Your task to perform on an android device: Open display settings Image 0: 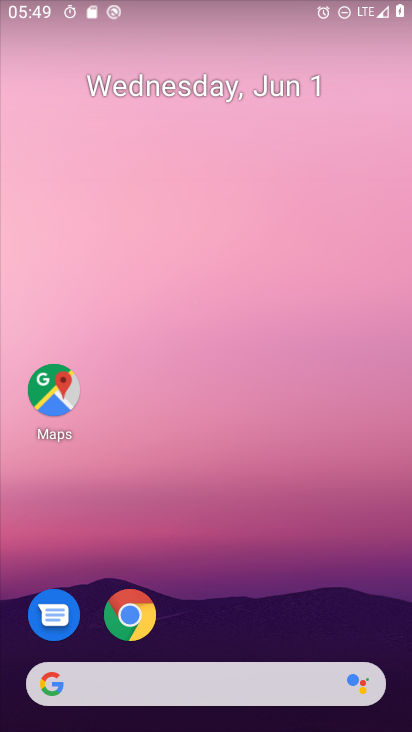
Step 0: press home button
Your task to perform on an android device: Open display settings Image 1: 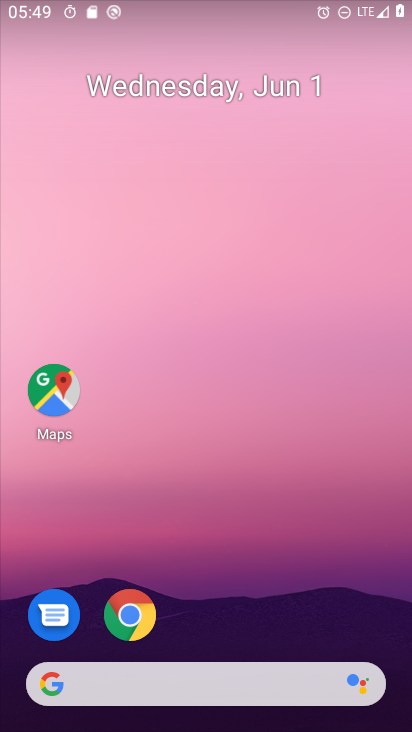
Step 1: drag from (269, 677) to (222, 5)
Your task to perform on an android device: Open display settings Image 2: 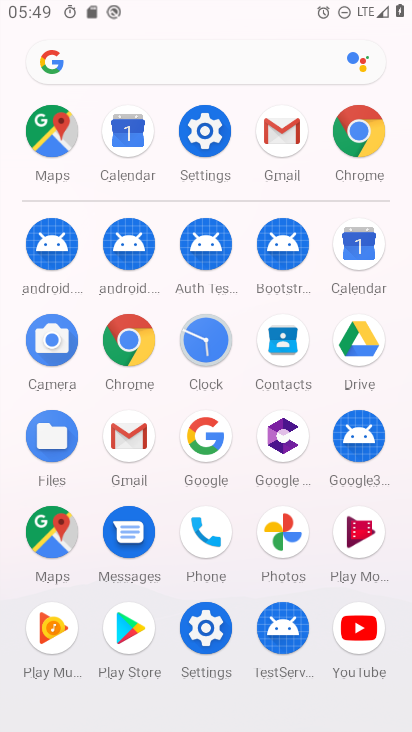
Step 2: click (219, 123)
Your task to perform on an android device: Open display settings Image 3: 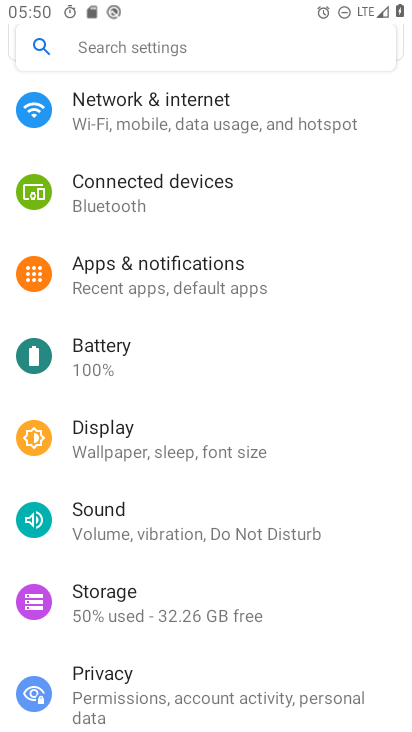
Step 3: click (146, 426)
Your task to perform on an android device: Open display settings Image 4: 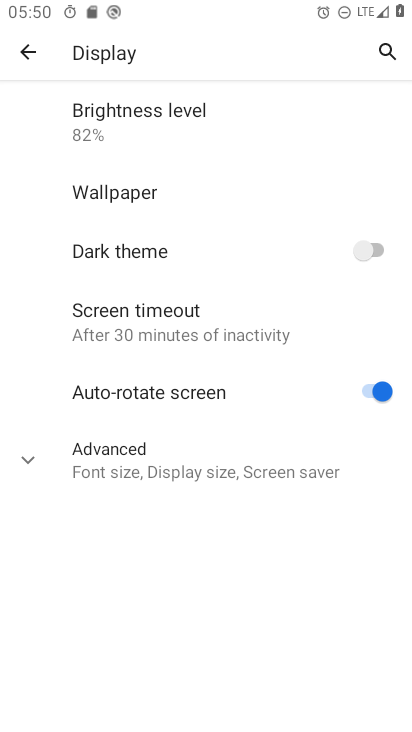
Step 4: task complete